Your task to perform on an android device: open chrome privacy settings Image 0: 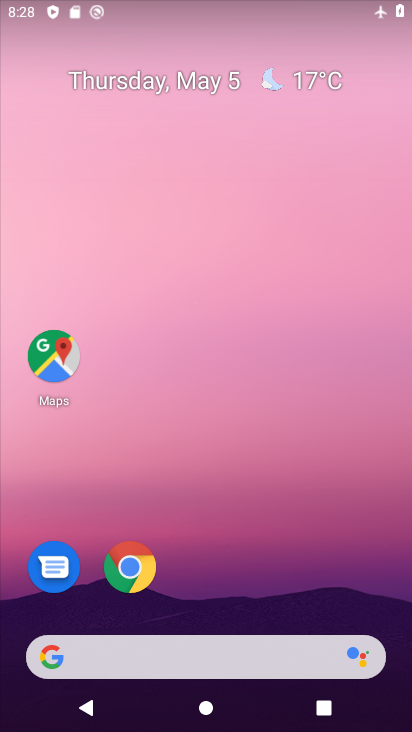
Step 0: drag from (226, 728) to (224, 181)
Your task to perform on an android device: open chrome privacy settings Image 1: 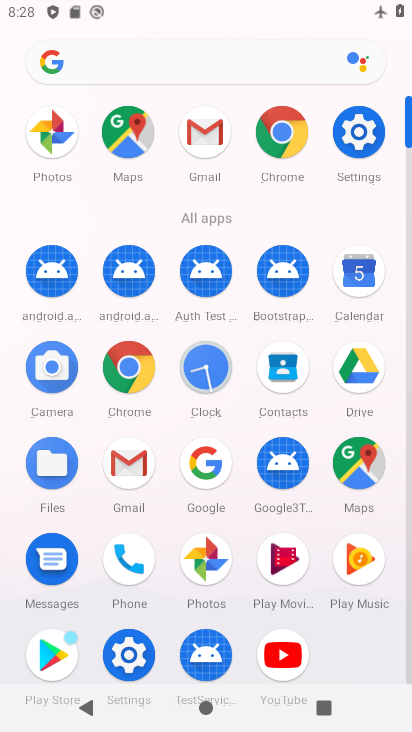
Step 1: click (290, 134)
Your task to perform on an android device: open chrome privacy settings Image 2: 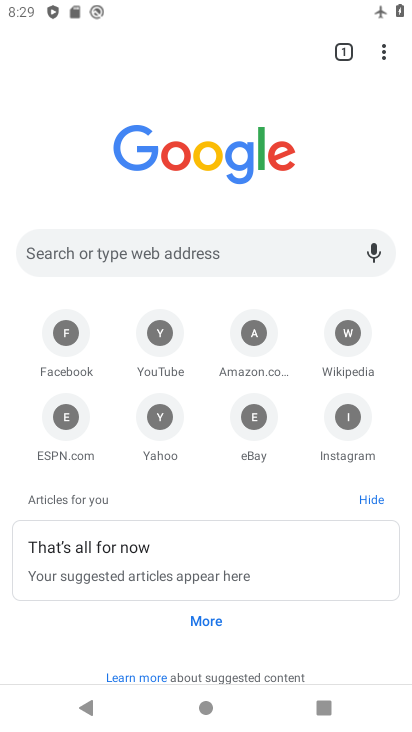
Step 2: click (382, 53)
Your task to perform on an android device: open chrome privacy settings Image 3: 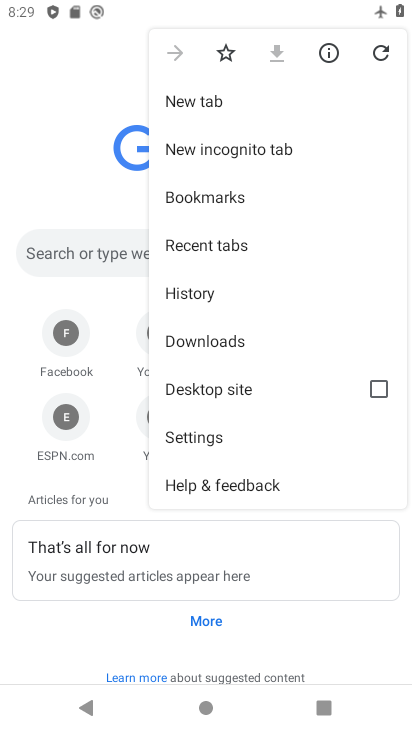
Step 3: drag from (227, 141) to (202, 438)
Your task to perform on an android device: open chrome privacy settings Image 4: 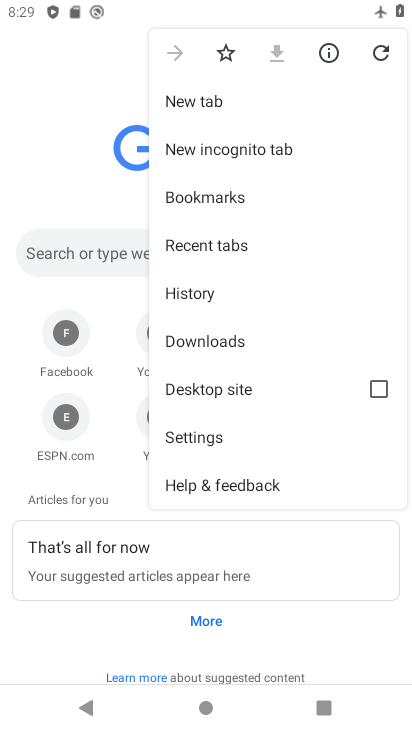
Step 4: click (200, 430)
Your task to perform on an android device: open chrome privacy settings Image 5: 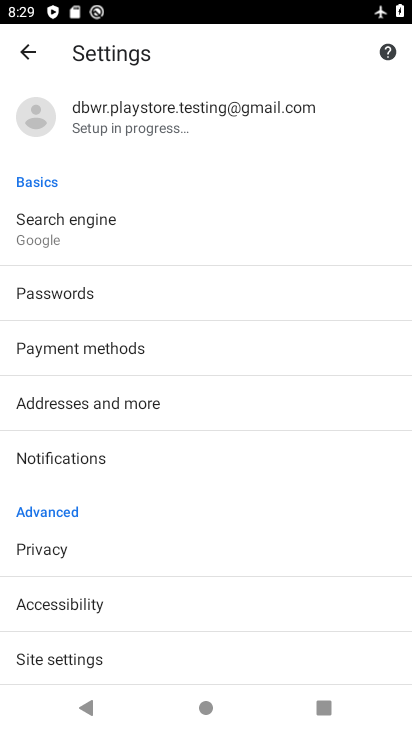
Step 5: click (72, 550)
Your task to perform on an android device: open chrome privacy settings Image 6: 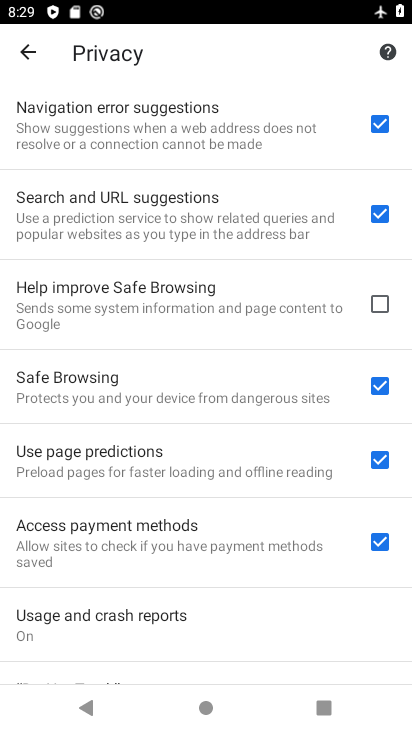
Step 6: task complete